Your task to perform on an android device: Go to wifi settings Image 0: 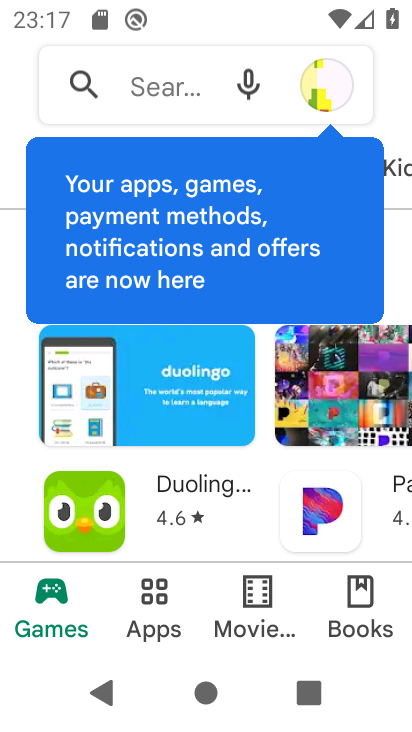
Step 0: press home button
Your task to perform on an android device: Go to wifi settings Image 1: 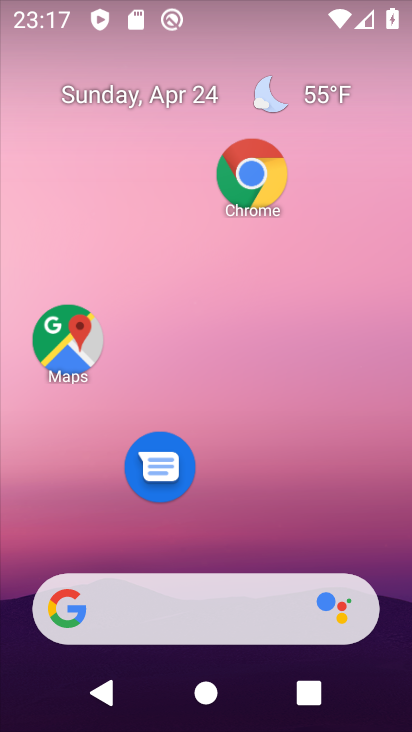
Step 1: drag from (223, 497) to (253, 60)
Your task to perform on an android device: Go to wifi settings Image 2: 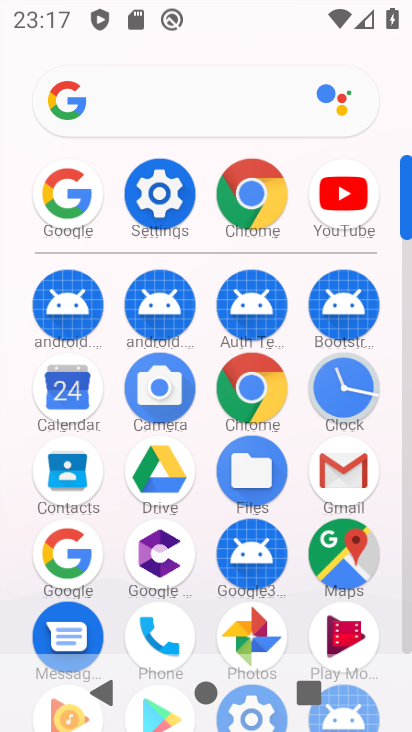
Step 2: click (160, 192)
Your task to perform on an android device: Go to wifi settings Image 3: 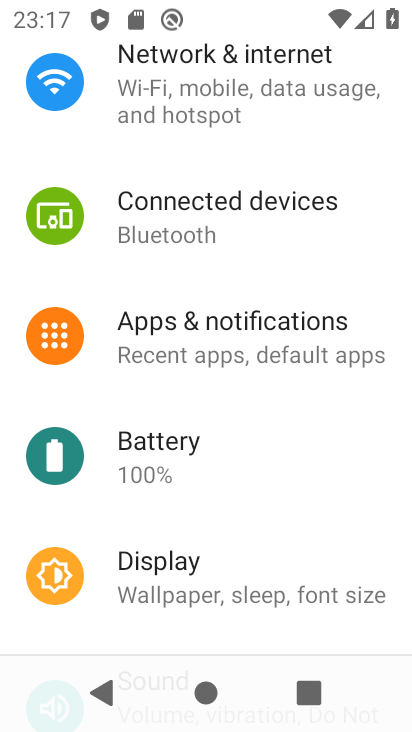
Step 3: click (195, 74)
Your task to perform on an android device: Go to wifi settings Image 4: 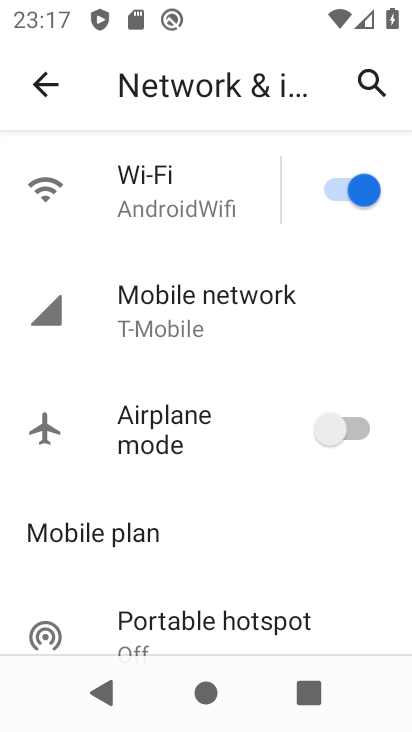
Step 4: click (186, 196)
Your task to perform on an android device: Go to wifi settings Image 5: 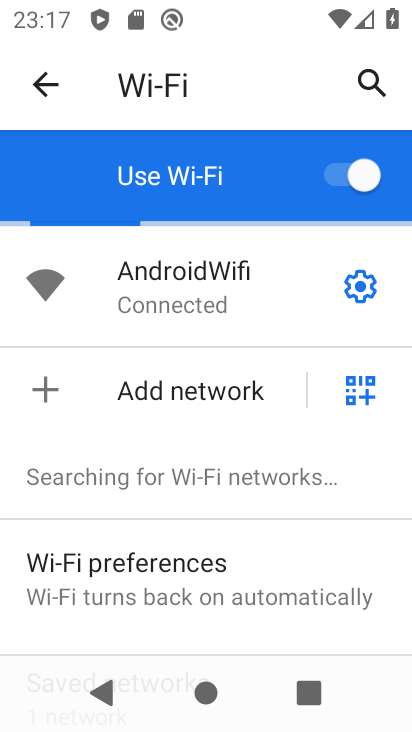
Step 5: click (363, 284)
Your task to perform on an android device: Go to wifi settings Image 6: 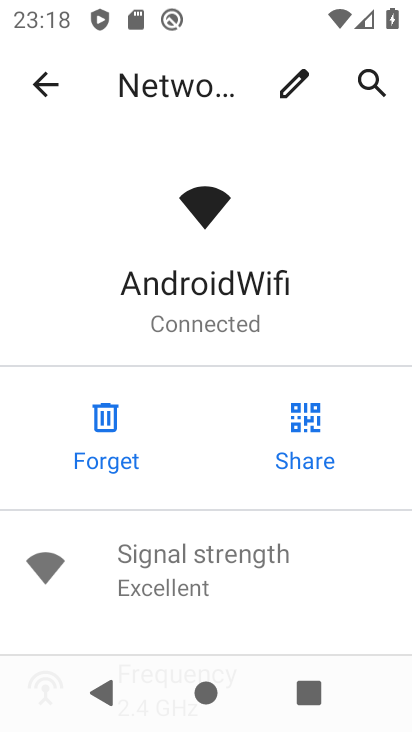
Step 6: task complete